Your task to perform on an android device: set default search engine in the chrome app Image 0: 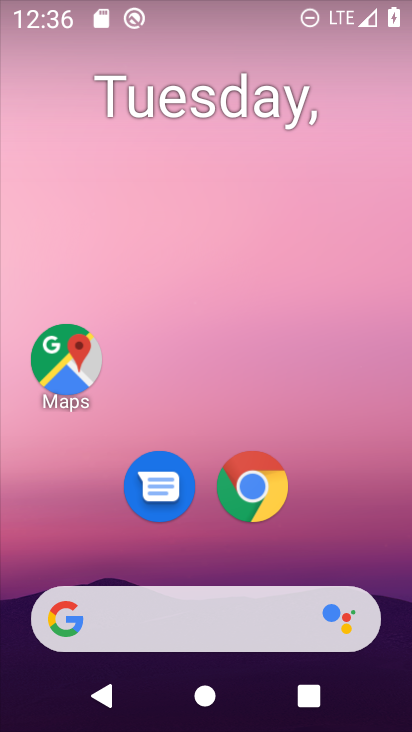
Step 0: drag from (214, 567) to (188, 218)
Your task to perform on an android device: set default search engine in the chrome app Image 1: 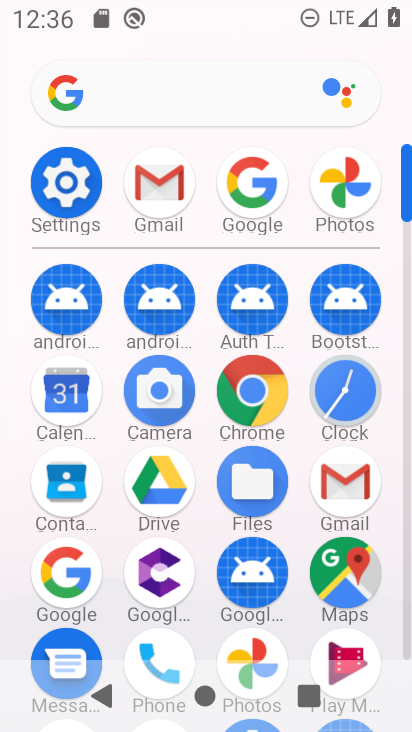
Step 1: click (249, 402)
Your task to perform on an android device: set default search engine in the chrome app Image 2: 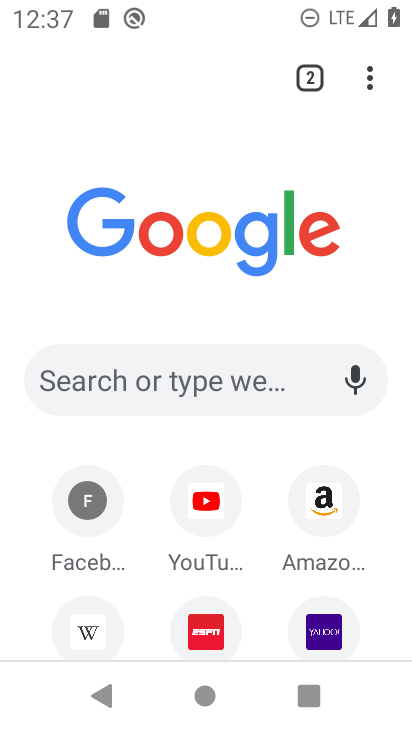
Step 2: click (368, 84)
Your task to perform on an android device: set default search engine in the chrome app Image 3: 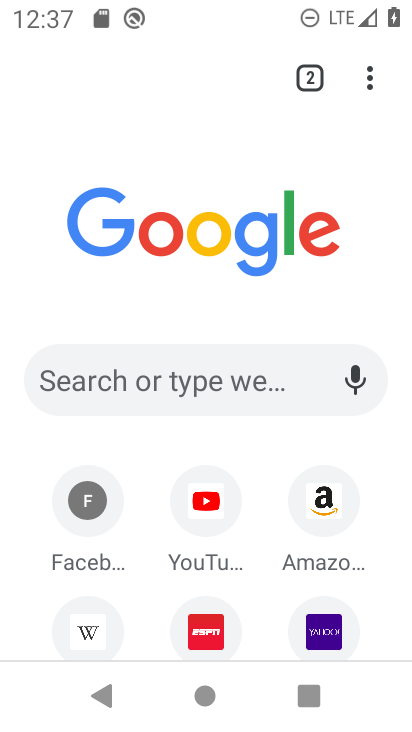
Step 3: click (370, 93)
Your task to perform on an android device: set default search engine in the chrome app Image 4: 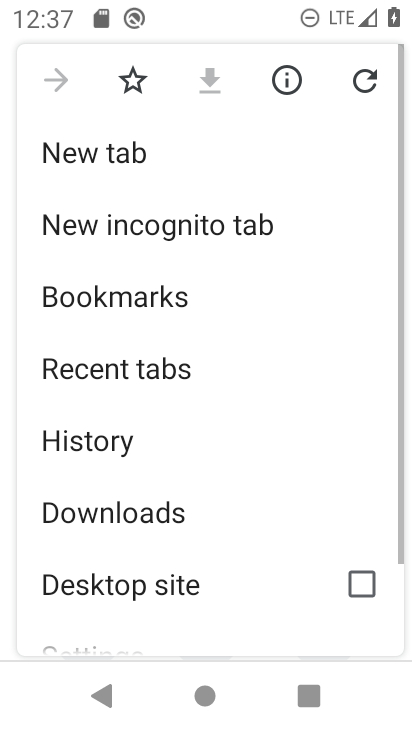
Step 4: drag from (180, 521) to (170, 174)
Your task to perform on an android device: set default search engine in the chrome app Image 5: 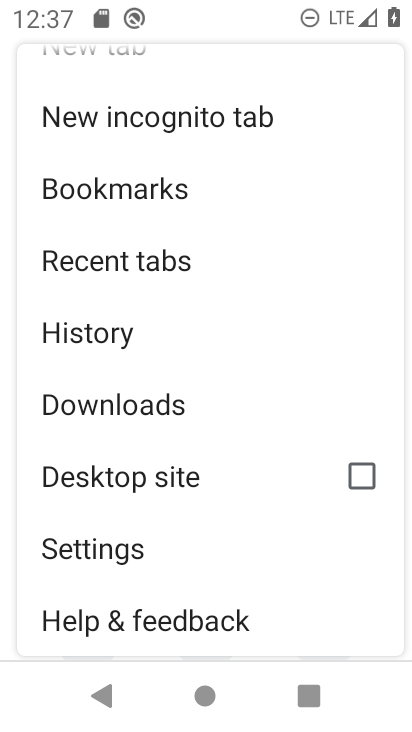
Step 5: click (154, 546)
Your task to perform on an android device: set default search engine in the chrome app Image 6: 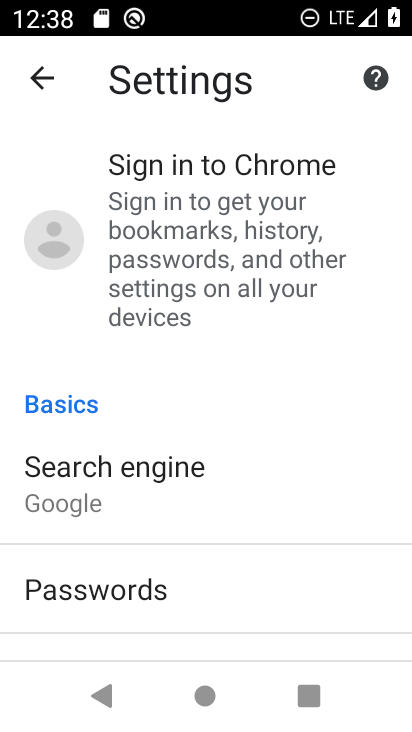
Step 6: task complete